Your task to perform on an android device: open a new tab in the chrome app Image 0: 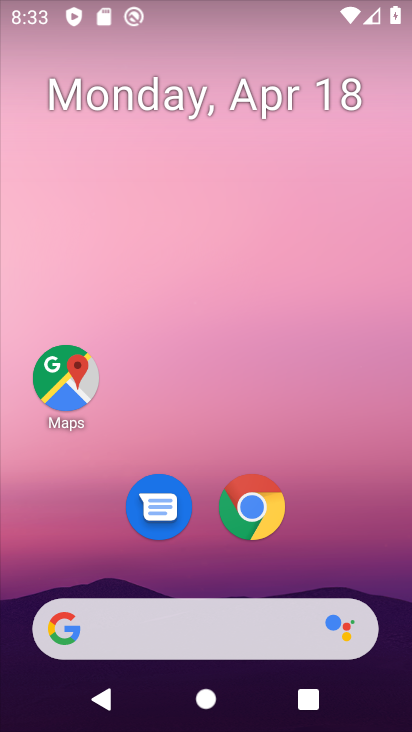
Step 0: drag from (228, 483) to (263, 158)
Your task to perform on an android device: open a new tab in the chrome app Image 1: 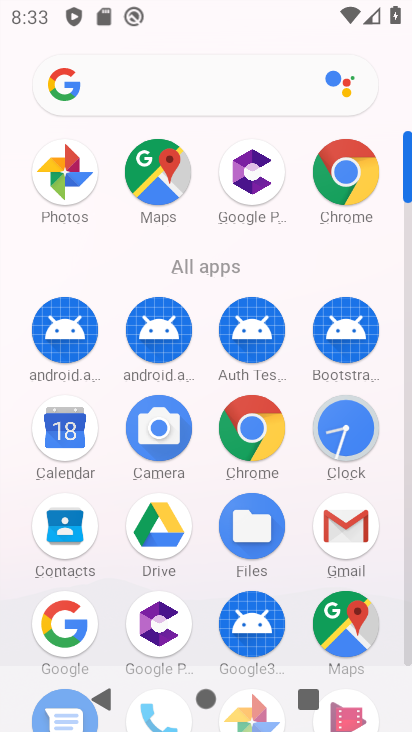
Step 1: click (334, 166)
Your task to perform on an android device: open a new tab in the chrome app Image 2: 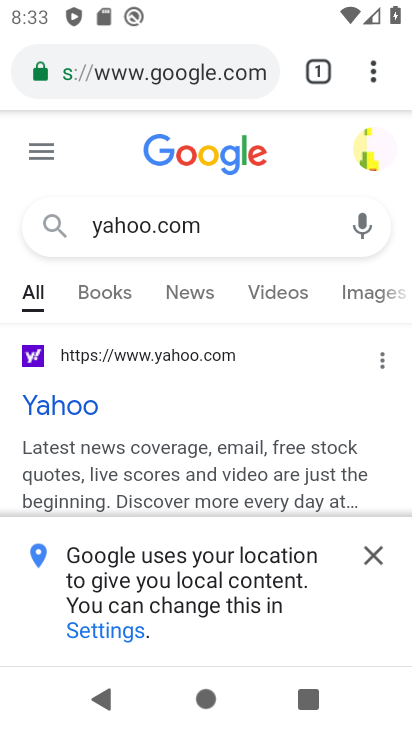
Step 2: click (318, 81)
Your task to perform on an android device: open a new tab in the chrome app Image 3: 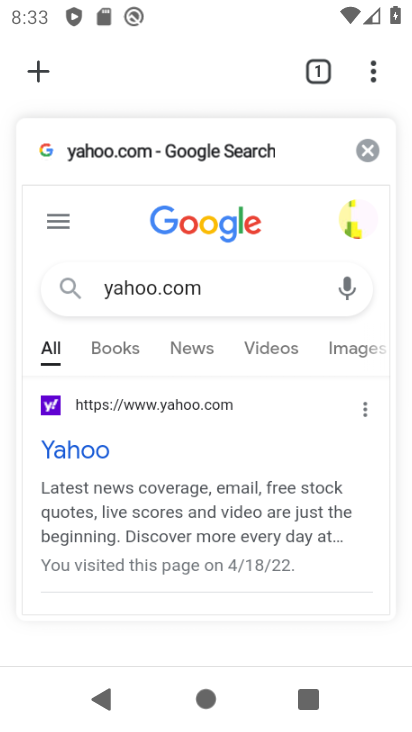
Step 3: click (40, 73)
Your task to perform on an android device: open a new tab in the chrome app Image 4: 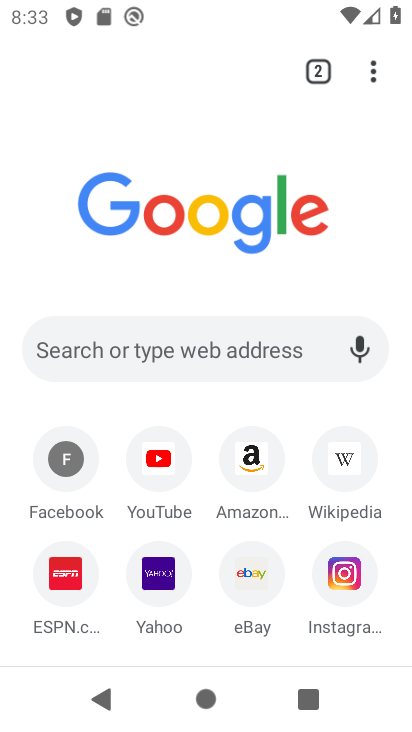
Step 4: task complete